Your task to perform on an android device: turn off notifications settings in the gmail app Image 0: 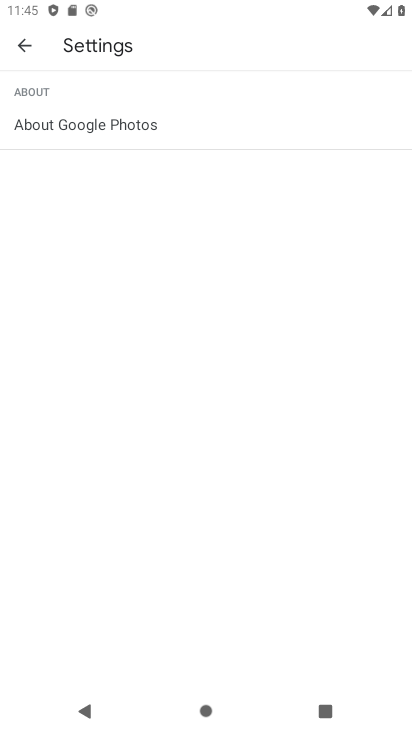
Step 0: press home button
Your task to perform on an android device: turn off notifications settings in the gmail app Image 1: 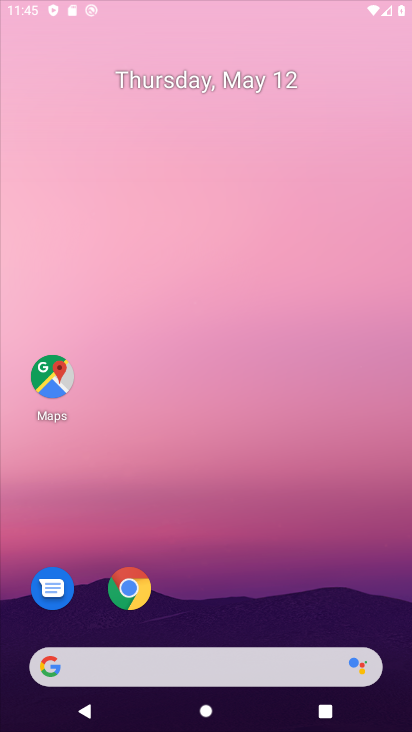
Step 1: drag from (184, 627) to (226, 117)
Your task to perform on an android device: turn off notifications settings in the gmail app Image 2: 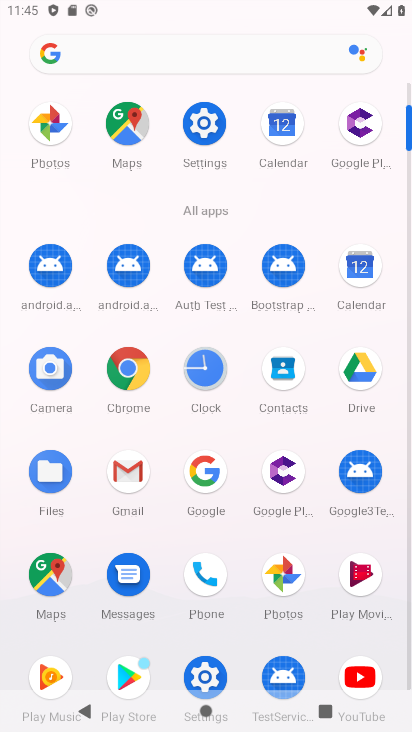
Step 2: click (127, 496)
Your task to perform on an android device: turn off notifications settings in the gmail app Image 3: 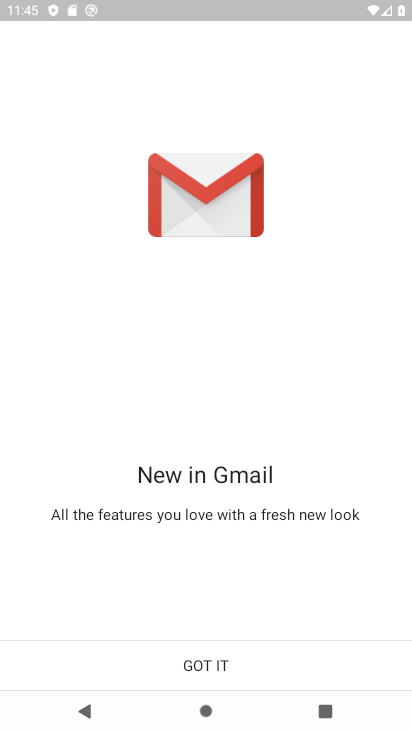
Step 3: click (201, 654)
Your task to perform on an android device: turn off notifications settings in the gmail app Image 4: 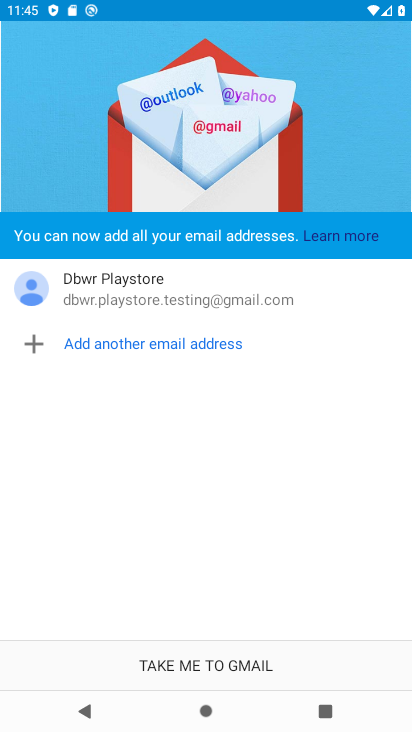
Step 4: click (185, 660)
Your task to perform on an android device: turn off notifications settings in the gmail app Image 5: 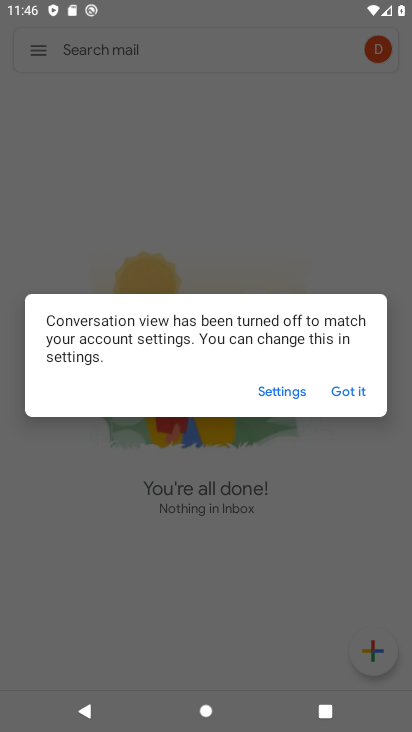
Step 5: click (355, 396)
Your task to perform on an android device: turn off notifications settings in the gmail app Image 6: 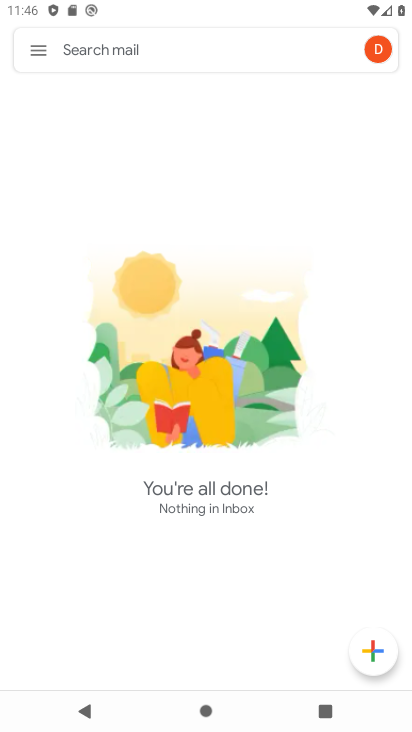
Step 6: click (45, 45)
Your task to perform on an android device: turn off notifications settings in the gmail app Image 7: 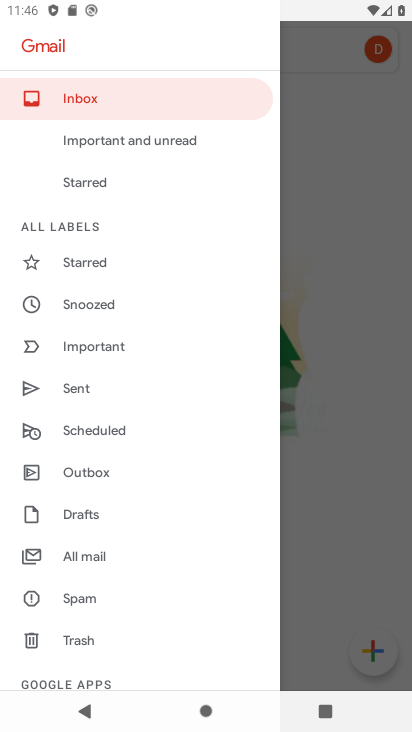
Step 7: drag from (91, 544) to (153, 233)
Your task to perform on an android device: turn off notifications settings in the gmail app Image 8: 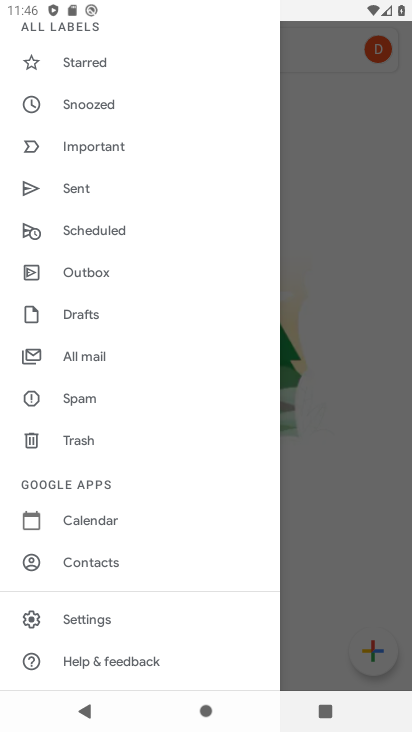
Step 8: click (94, 619)
Your task to perform on an android device: turn off notifications settings in the gmail app Image 9: 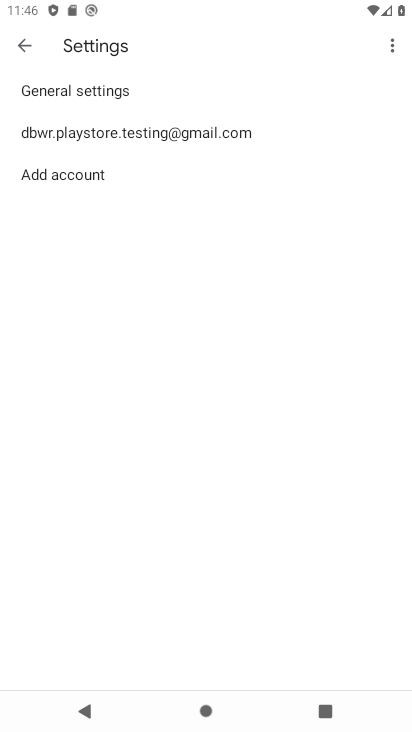
Step 9: click (85, 101)
Your task to perform on an android device: turn off notifications settings in the gmail app Image 10: 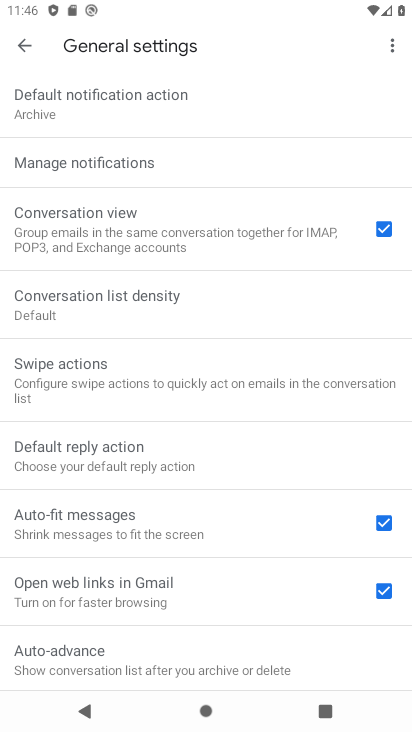
Step 10: click (140, 159)
Your task to perform on an android device: turn off notifications settings in the gmail app Image 11: 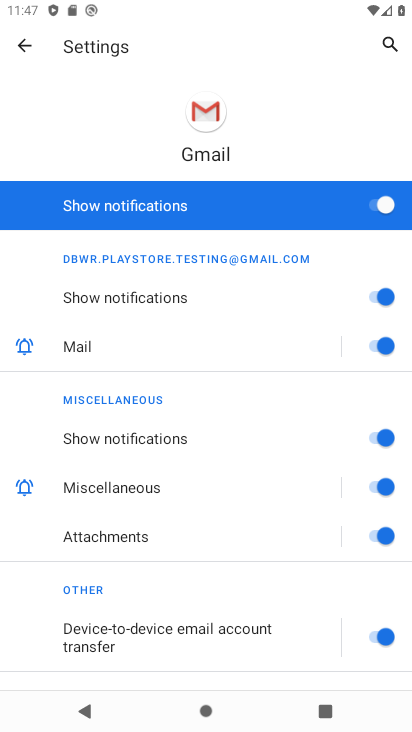
Step 11: drag from (167, 543) to (222, 354)
Your task to perform on an android device: turn off notifications settings in the gmail app Image 12: 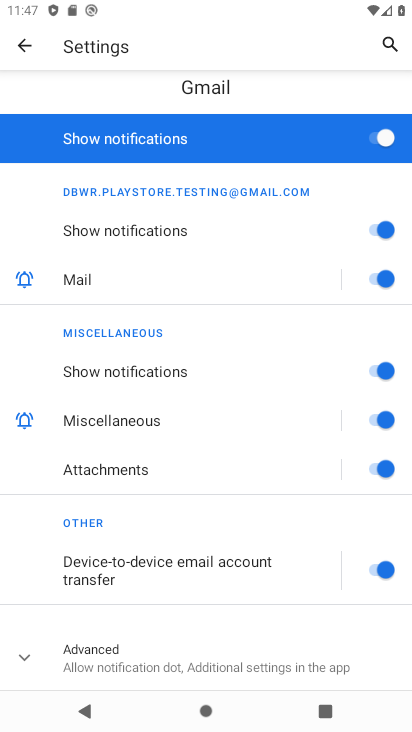
Step 12: click (383, 141)
Your task to perform on an android device: turn off notifications settings in the gmail app Image 13: 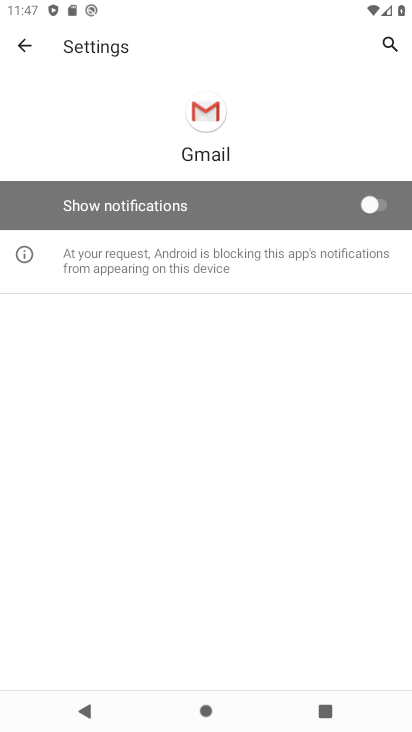
Step 13: task complete